Your task to perform on an android device: change your default location settings in chrome Image 0: 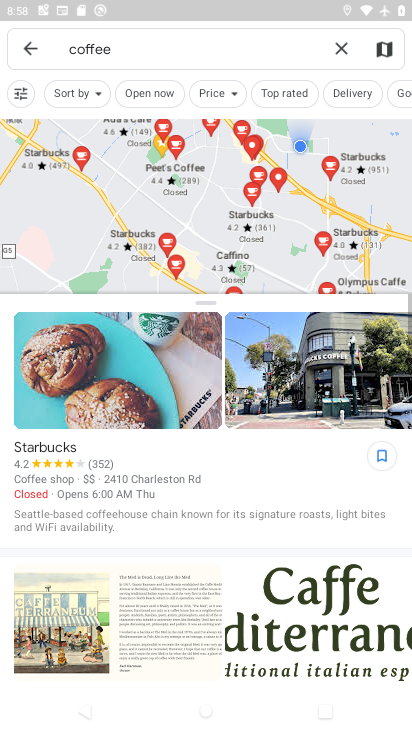
Step 0: press home button
Your task to perform on an android device: change your default location settings in chrome Image 1: 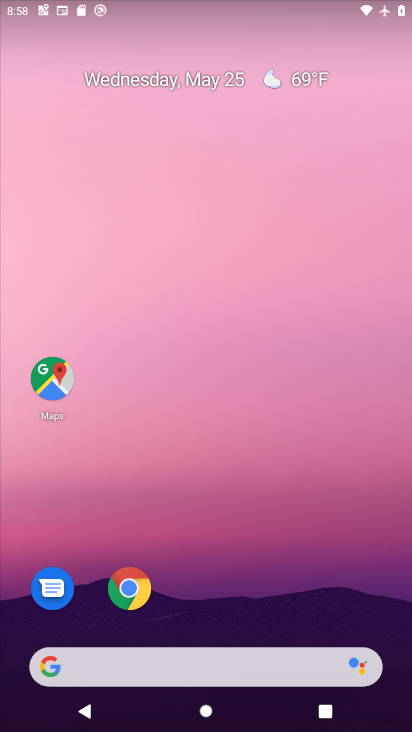
Step 1: drag from (378, 592) to (363, 204)
Your task to perform on an android device: change your default location settings in chrome Image 2: 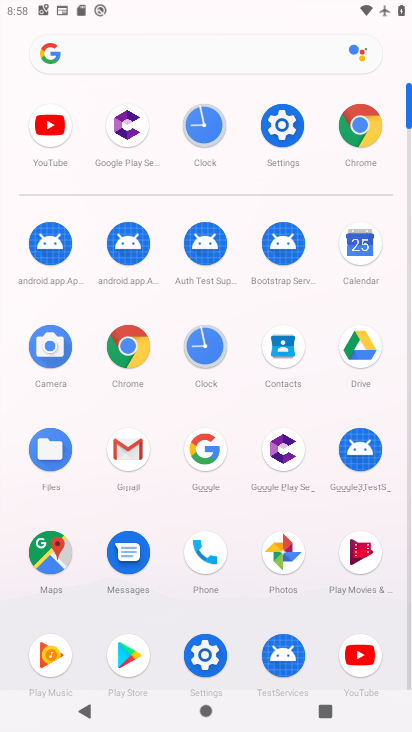
Step 2: click (138, 355)
Your task to perform on an android device: change your default location settings in chrome Image 3: 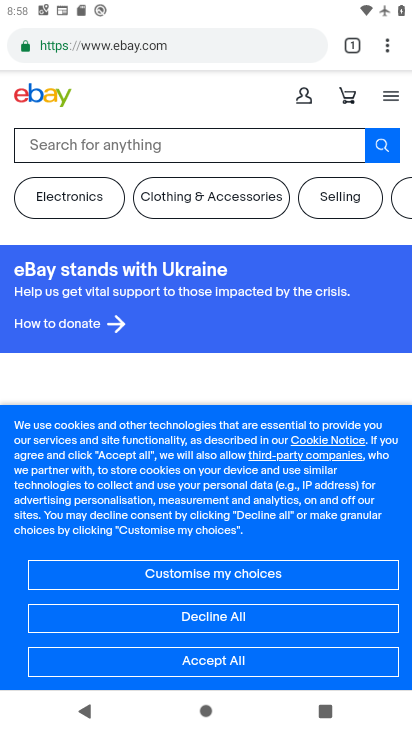
Step 3: click (389, 48)
Your task to perform on an android device: change your default location settings in chrome Image 4: 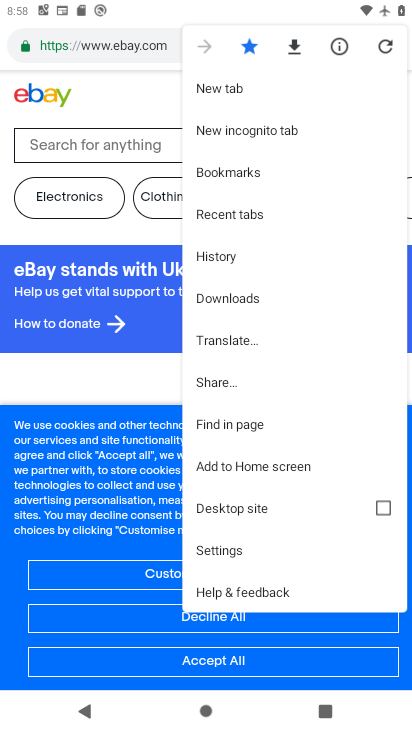
Step 4: click (239, 556)
Your task to perform on an android device: change your default location settings in chrome Image 5: 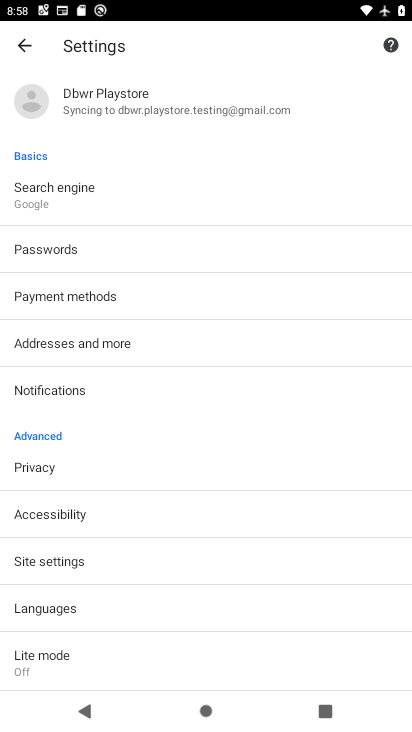
Step 5: drag from (253, 597) to (280, 493)
Your task to perform on an android device: change your default location settings in chrome Image 6: 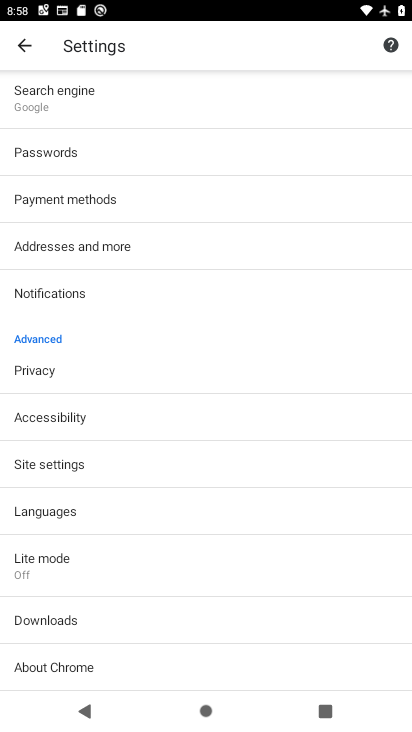
Step 6: drag from (286, 625) to (306, 477)
Your task to perform on an android device: change your default location settings in chrome Image 7: 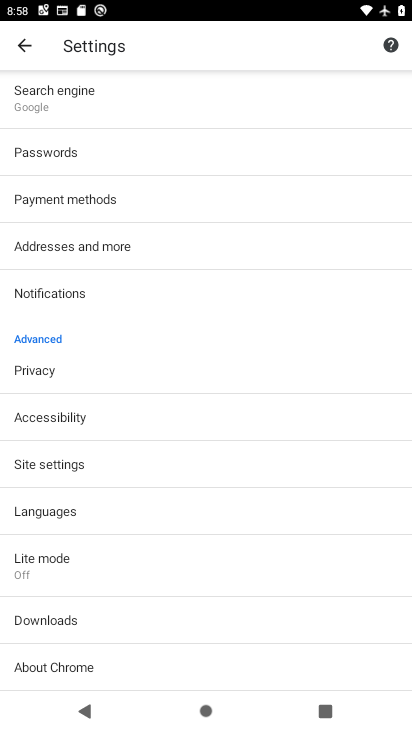
Step 7: drag from (282, 272) to (283, 355)
Your task to perform on an android device: change your default location settings in chrome Image 8: 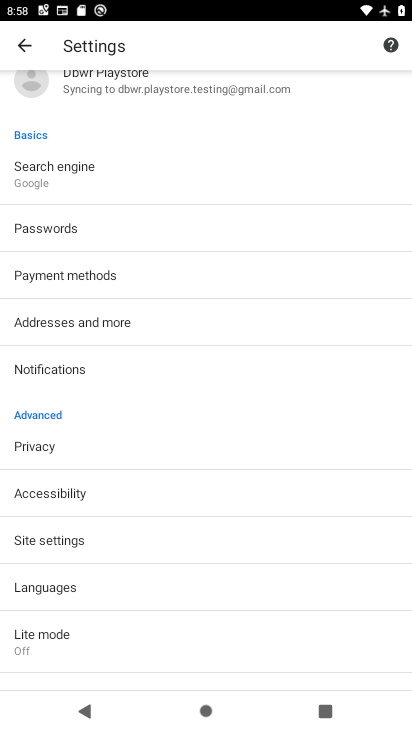
Step 8: drag from (262, 332) to (260, 450)
Your task to perform on an android device: change your default location settings in chrome Image 9: 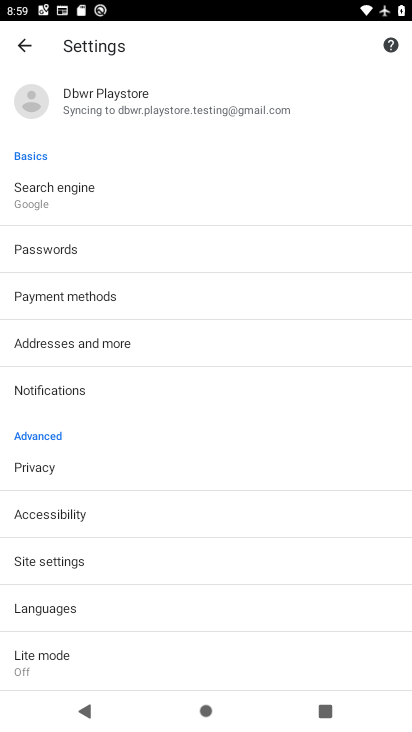
Step 9: drag from (248, 336) to (254, 500)
Your task to perform on an android device: change your default location settings in chrome Image 10: 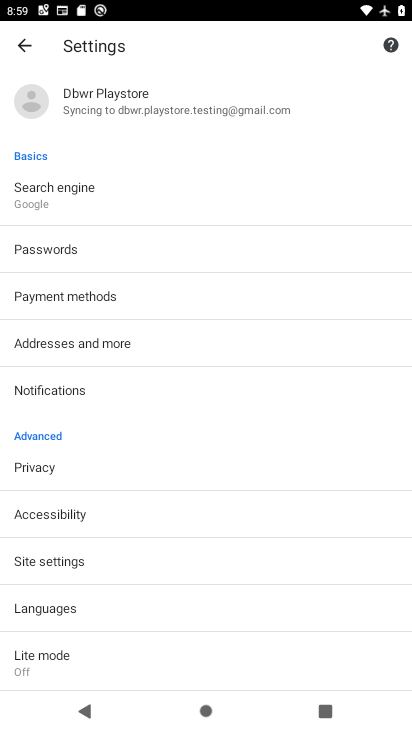
Step 10: click (236, 566)
Your task to perform on an android device: change your default location settings in chrome Image 11: 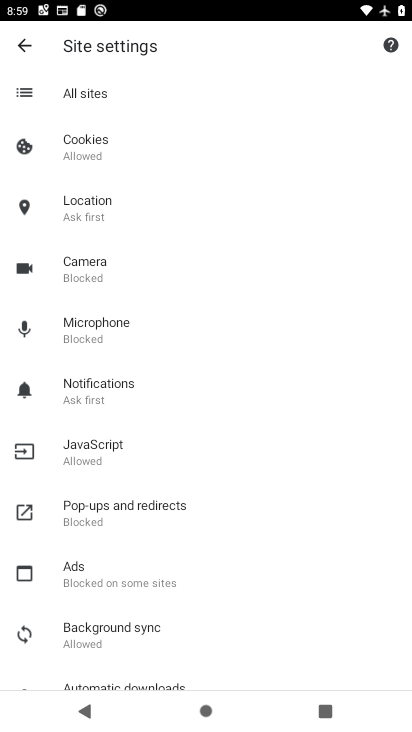
Step 11: drag from (338, 571) to (366, 433)
Your task to perform on an android device: change your default location settings in chrome Image 12: 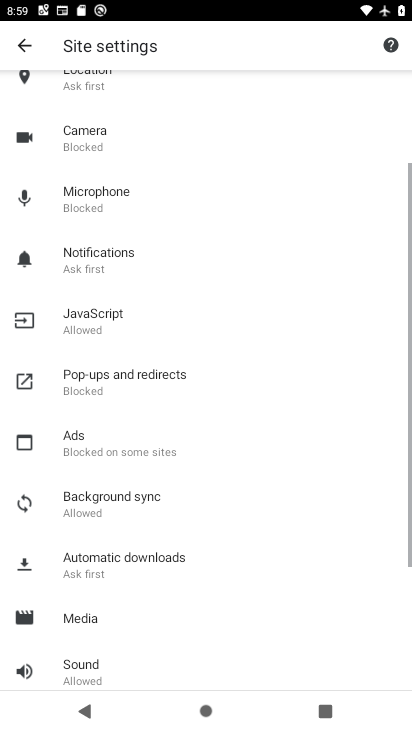
Step 12: drag from (334, 340) to (329, 451)
Your task to perform on an android device: change your default location settings in chrome Image 13: 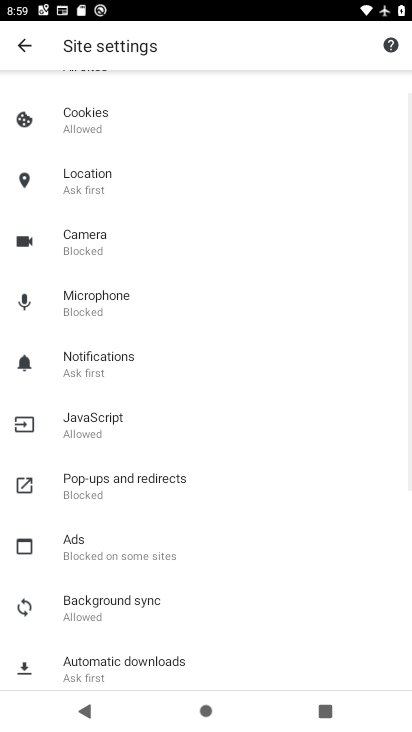
Step 13: drag from (300, 262) to (302, 452)
Your task to perform on an android device: change your default location settings in chrome Image 14: 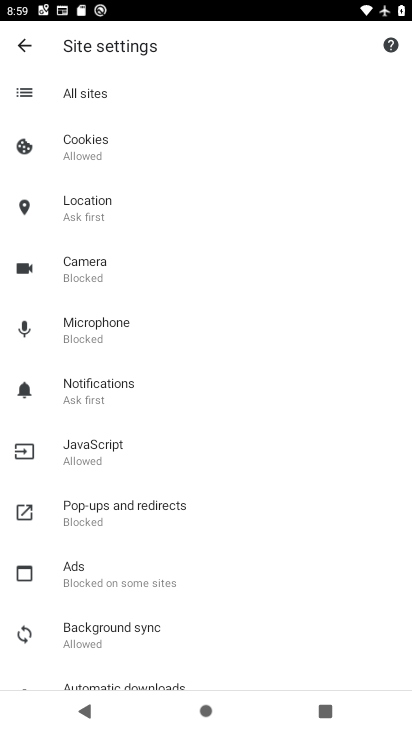
Step 14: click (110, 205)
Your task to perform on an android device: change your default location settings in chrome Image 15: 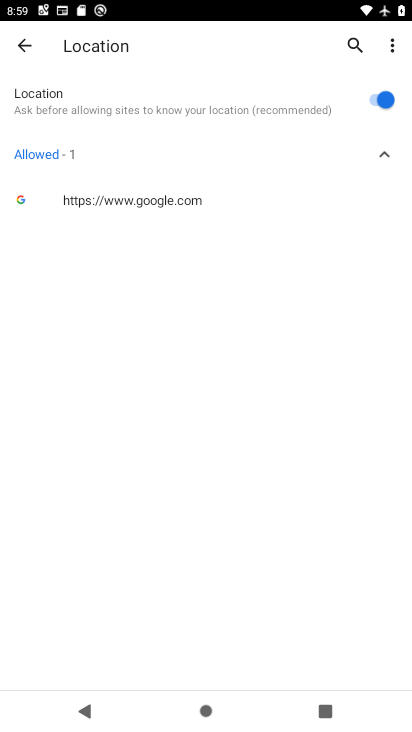
Step 15: click (385, 104)
Your task to perform on an android device: change your default location settings in chrome Image 16: 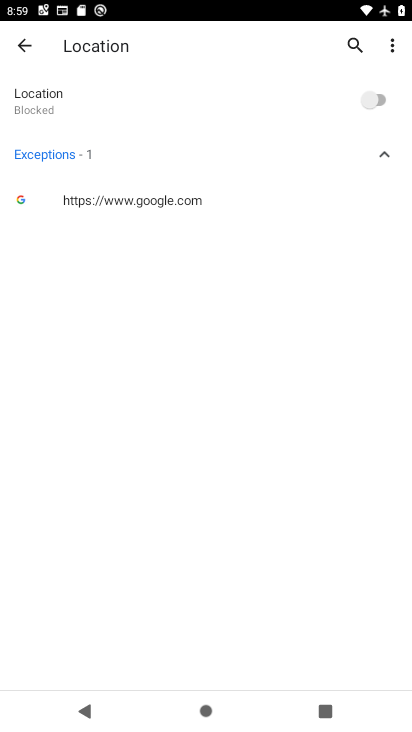
Step 16: task complete